Your task to perform on an android device: find photos in the google photos app Image 0: 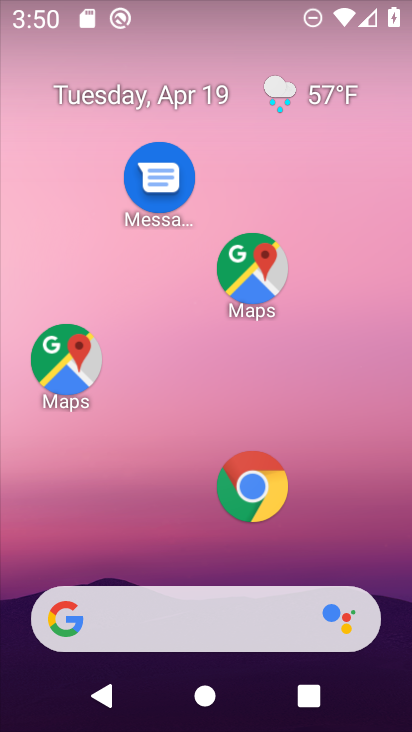
Step 0: drag from (140, 548) to (137, 166)
Your task to perform on an android device: find photos in the google photos app Image 1: 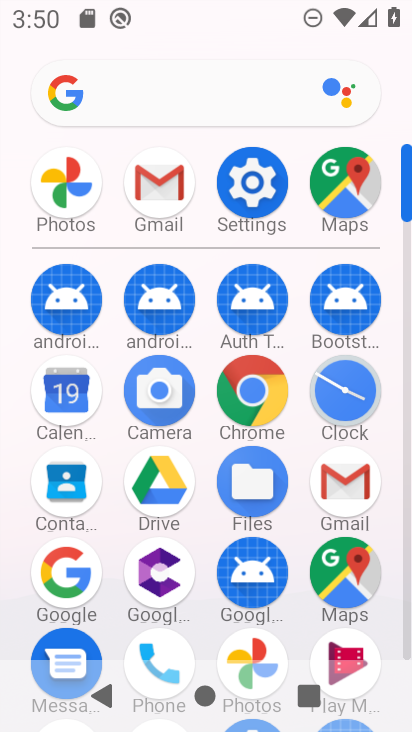
Step 1: drag from (293, 607) to (278, 430)
Your task to perform on an android device: find photos in the google photos app Image 2: 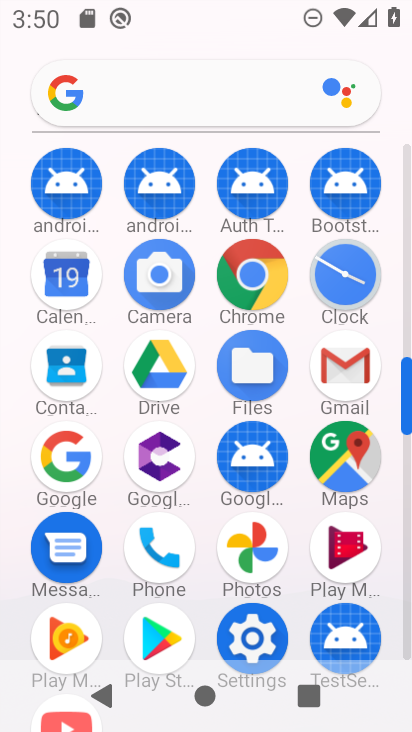
Step 2: click (272, 541)
Your task to perform on an android device: find photos in the google photos app Image 3: 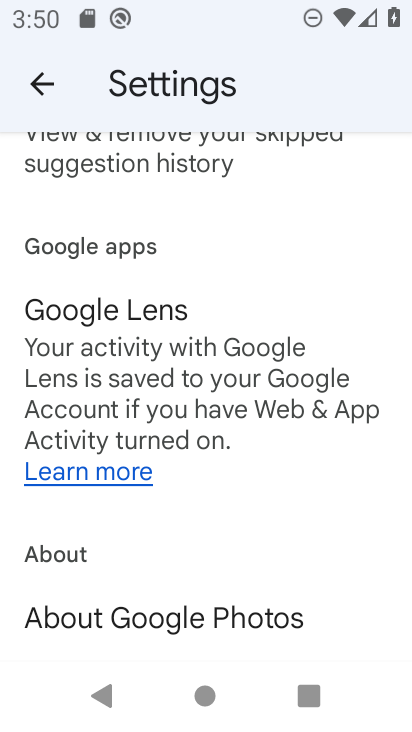
Step 3: click (44, 98)
Your task to perform on an android device: find photos in the google photos app Image 4: 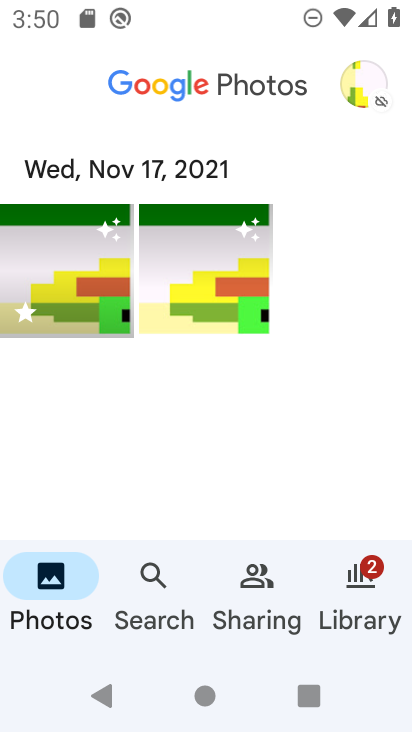
Step 4: click (41, 229)
Your task to perform on an android device: find photos in the google photos app Image 5: 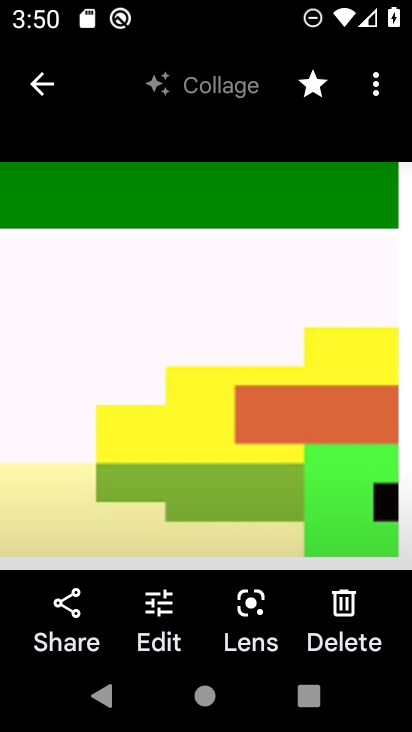
Step 5: task complete